Your task to perform on an android device: turn notification dots on Image 0: 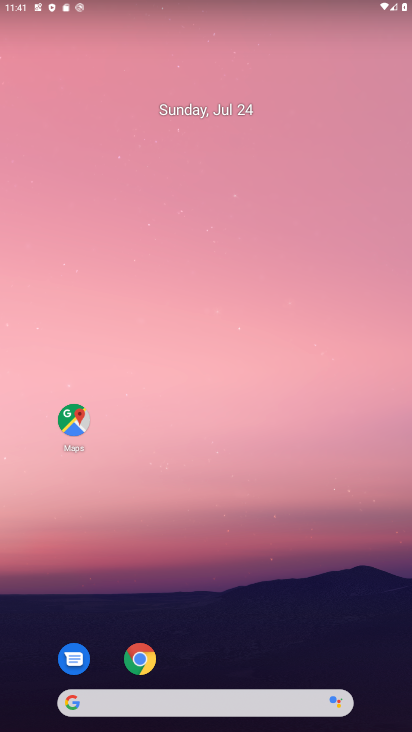
Step 0: drag from (36, 688) to (247, 216)
Your task to perform on an android device: turn notification dots on Image 1: 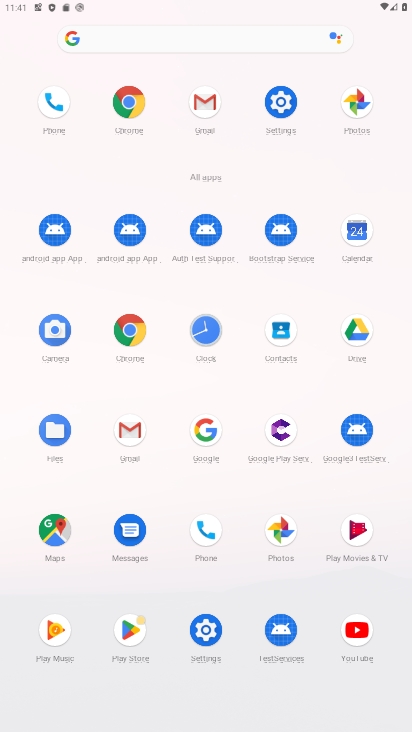
Step 1: click (223, 650)
Your task to perform on an android device: turn notification dots on Image 2: 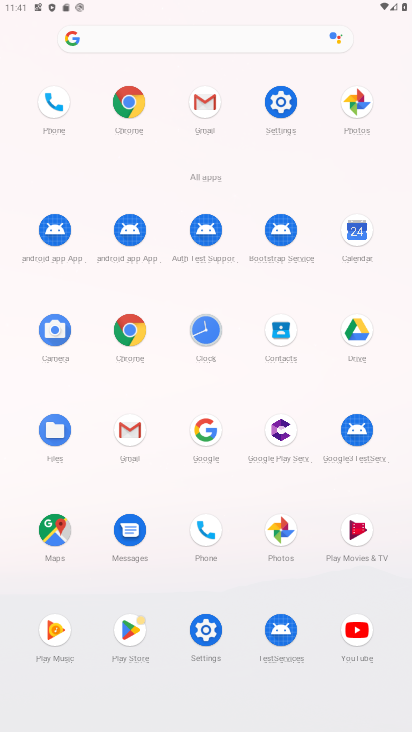
Step 2: click (214, 629)
Your task to perform on an android device: turn notification dots on Image 3: 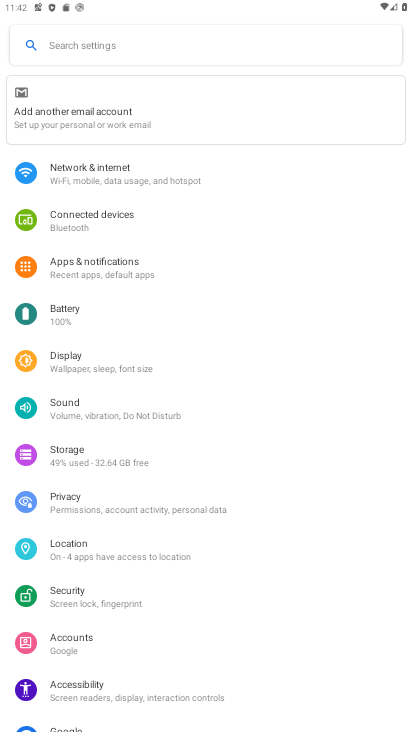
Step 3: click (105, 273)
Your task to perform on an android device: turn notification dots on Image 4: 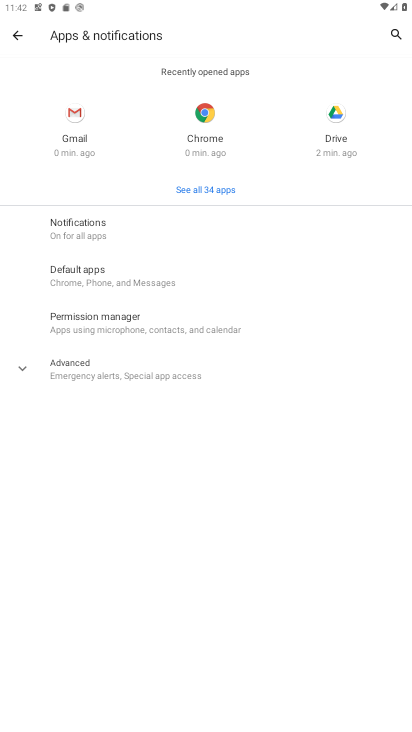
Step 4: click (84, 374)
Your task to perform on an android device: turn notification dots on Image 5: 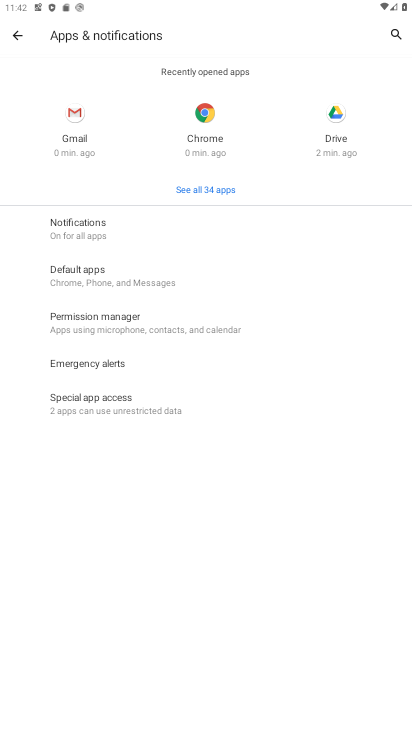
Step 5: click (85, 225)
Your task to perform on an android device: turn notification dots on Image 6: 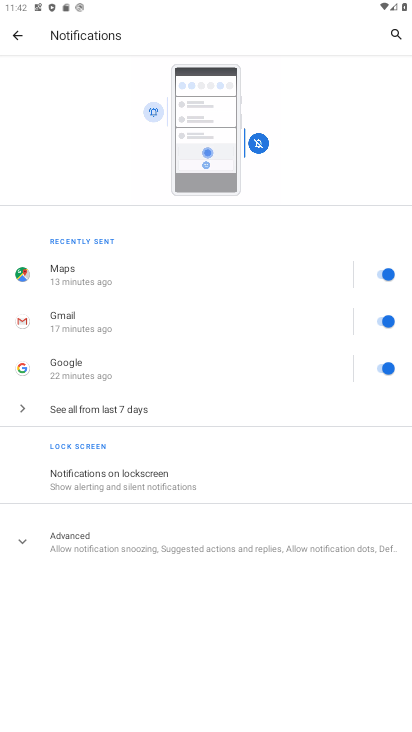
Step 6: click (118, 534)
Your task to perform on an android device: turn notification dots on Image 7: 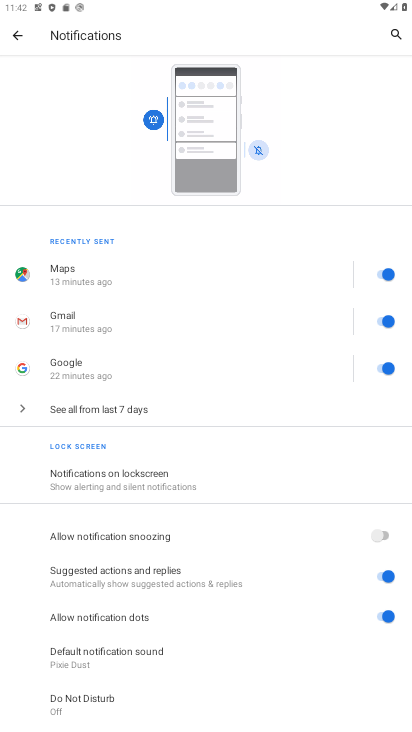
Step 7: task complete